Your task to perform on an android device: turn on showing notifications on the lock screen Image 0: 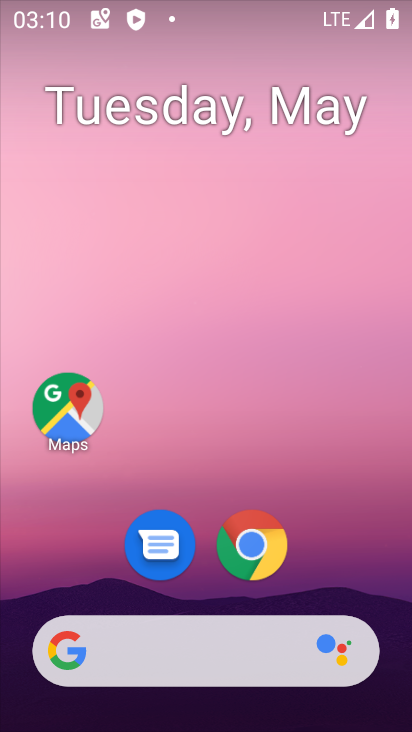
Step 0: drag from (393, 628) to (327, 22)
Your task to perform on an android device: turn on showing notifications on the lock screen Image 1: 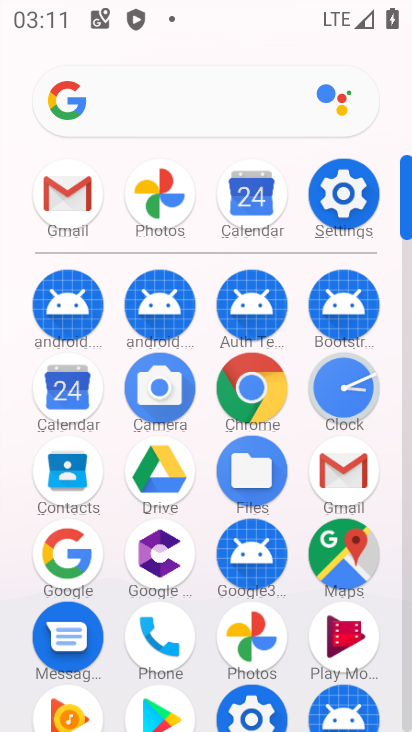
Step 1: click (408, 713)
Your task to perform on an android device: turn on showing notifications on the lock screen Image 2: 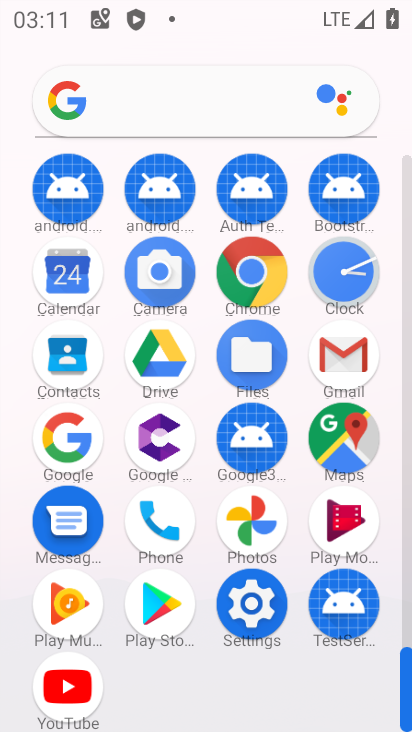
Step 2: click (249, 604)
Your task to perform on an android device: turn on showing notifications on the lock screen Image 3: 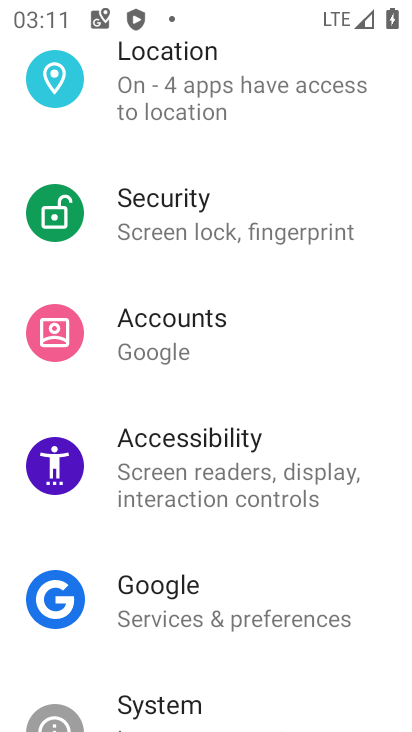
Step 3: drag from (351, 246) to (345, 658)
Your task to perform on an android device: turn on showing notifications on the lock screen Image 4: 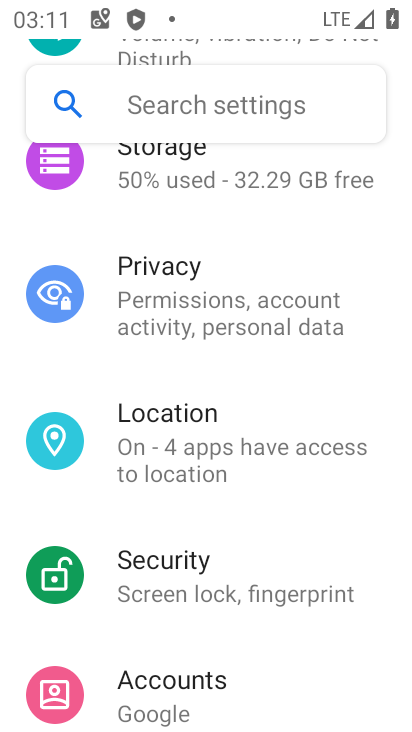
Step 4: drag from (353, 297) to (358, 678)
Your task to perform on an android device: turn on showing notifications on the lock screen Image 5: 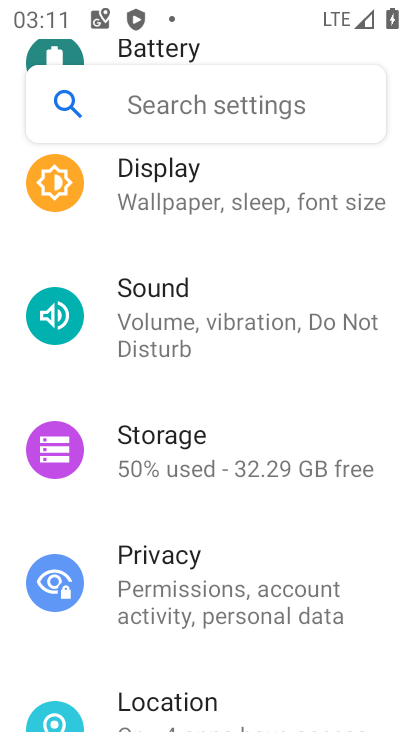
Step 5: drag from (373, 233) to (380, 581)
Your task to perform on an android device: turn on showing notifications on the lock screen Image 6: 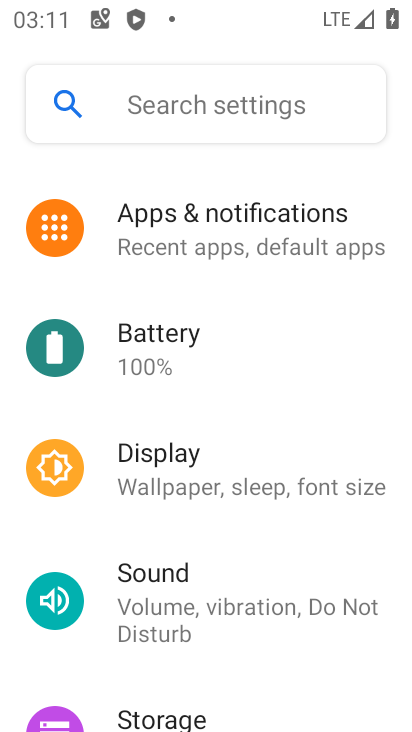
Step 6: click (162, 232)
Your task to perform on an android device: turn on showing notifications on the lock screen Image 7: 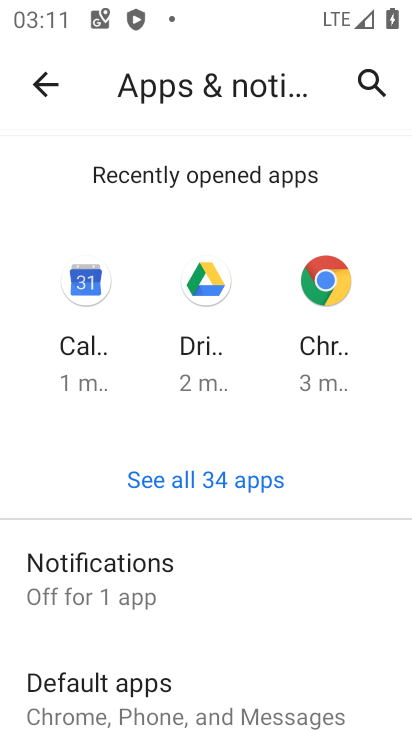
Step 7: click (127, 569)
Your task to perform on an android device: turn on showing notifications on the lock screen Image 8: 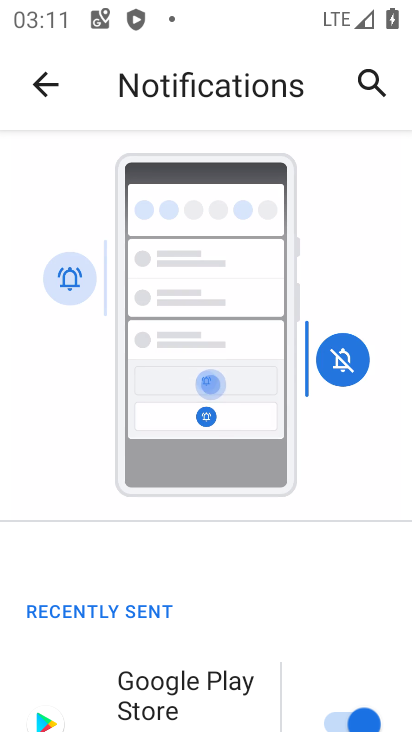
Step 8: drag from (279, 679) to (240, 143)
Your task to perform on an android device: turn on showing notifications on the lock screen Image 9: 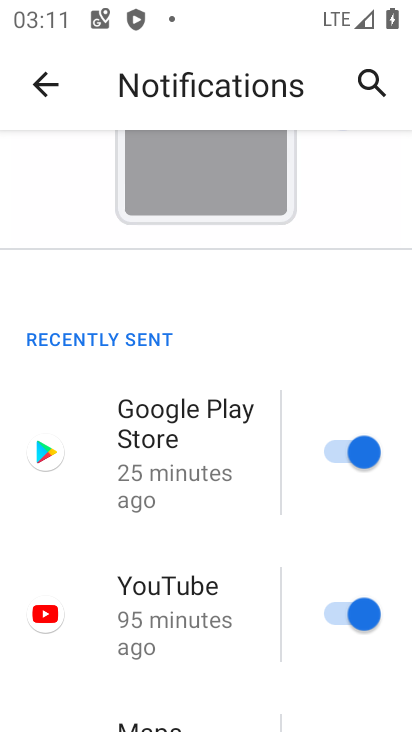
Step 9: drag from (252, 616) to (243, 148)
Your task to perform on an android device: turn on showing notifications on the lock screen Image 10: 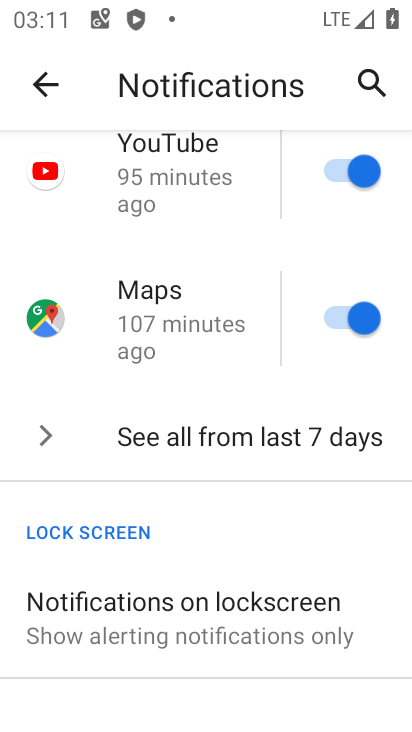
Step 10: drag from (233, 578) to (248, 291)
Your task to perform on an android device: turn on showing notifications on the lock screen Image 11: 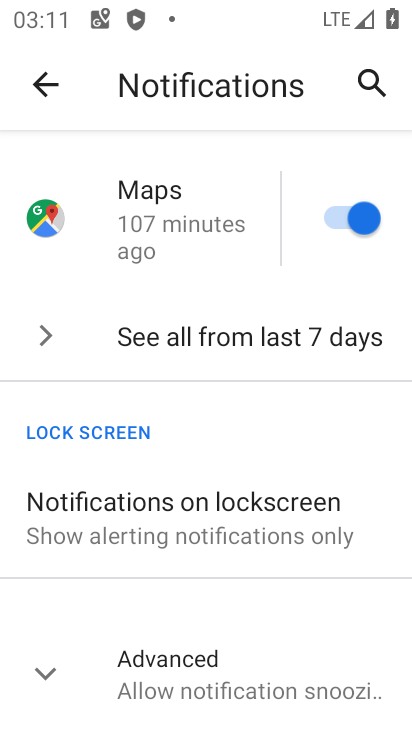
Step 11: click (143, 517)
Your task to perform on an android device: turn on showing notifications on the lock screen Image 12: 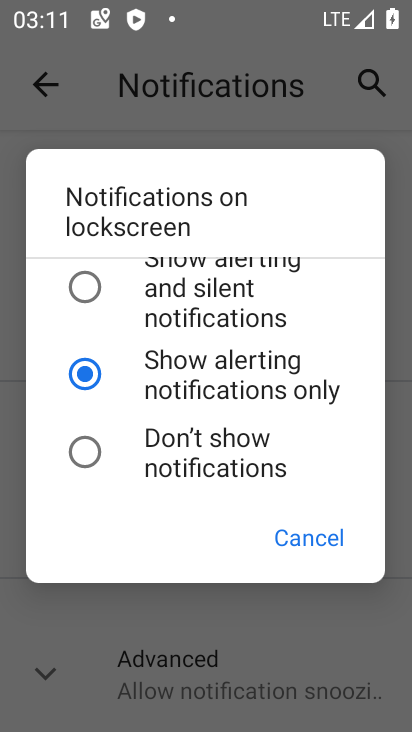
Step 12: click (89, 285)
Your task to perform on an android device: turn on showing notifications on the lock screen Image 13: 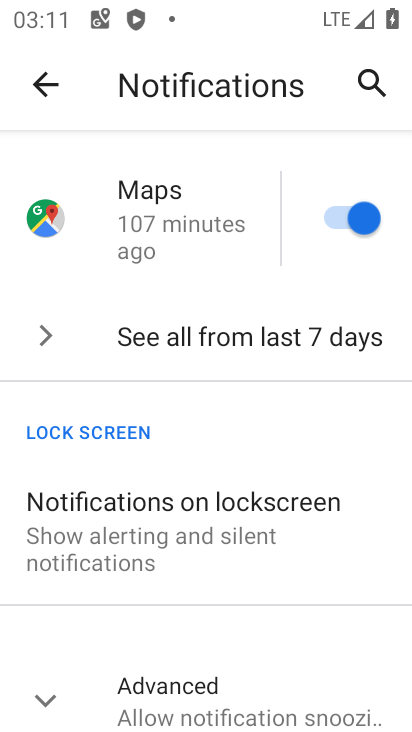
Step 13: task complete